Your task to perform on an android device: turn notification dots on Image 0: 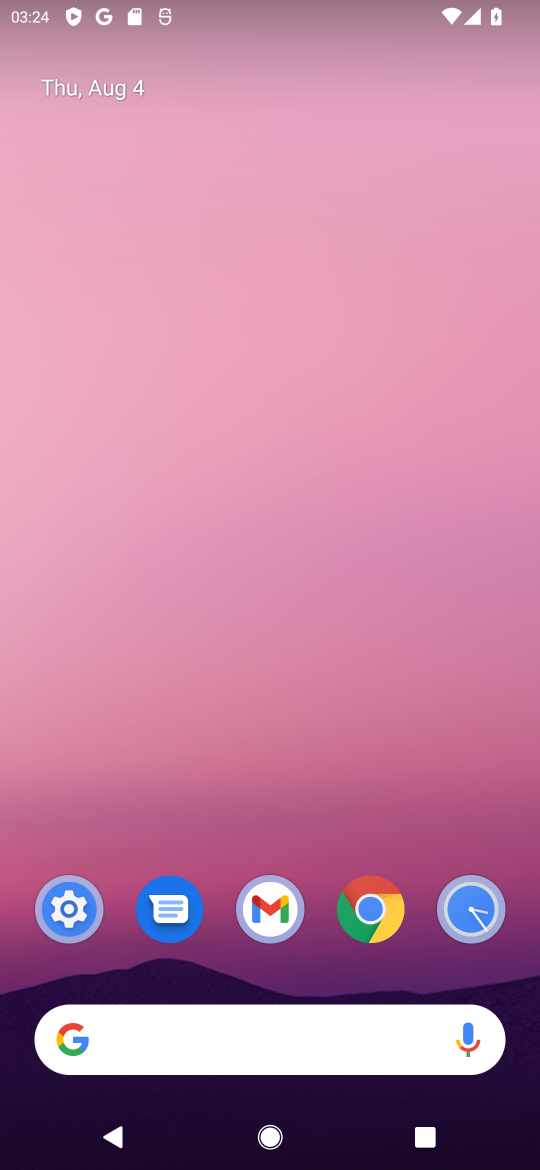
Step 0: click (71, 912)
Your task to perform on an android device: turn notification dots on Image 1: 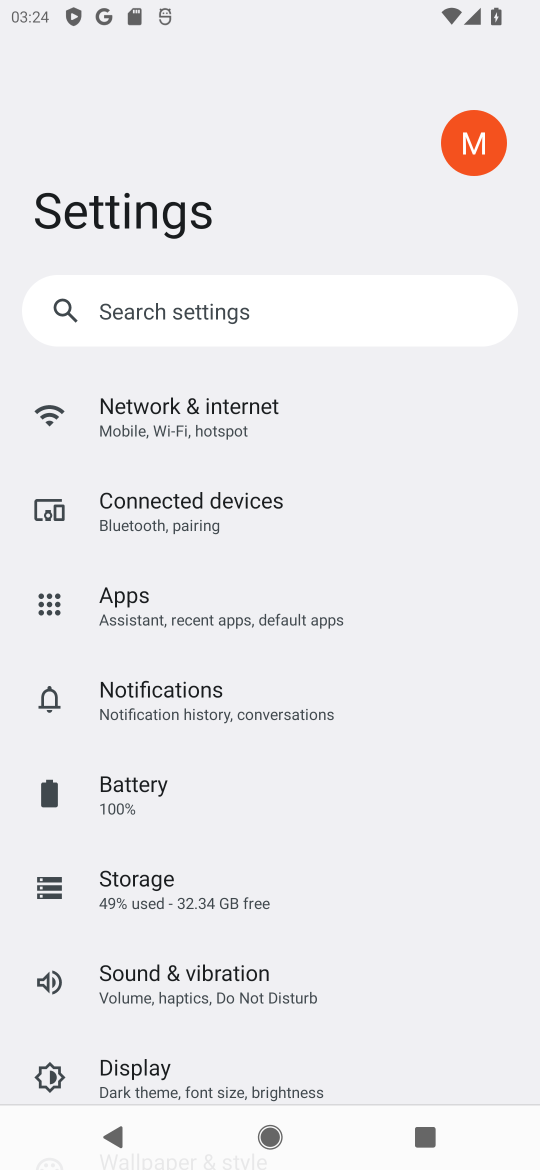
Step 1: click (209, 718)
Your task to perform on an android device: turn notification dots on Image 2: 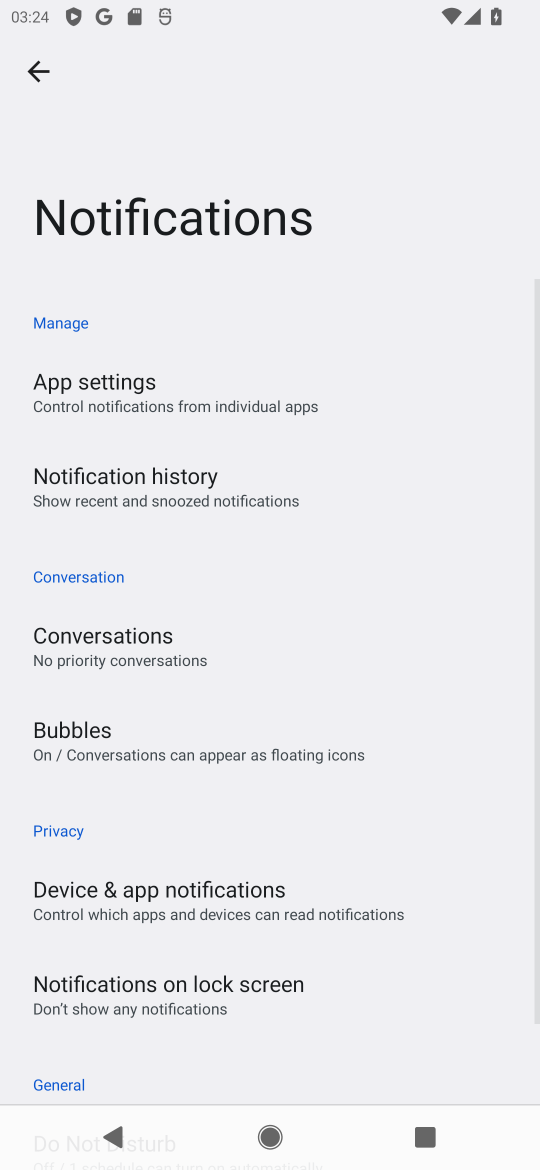
Step 2: task complete